Your task to perform on an android device: open app "Pinterest" (install if not already installed) Image 0: 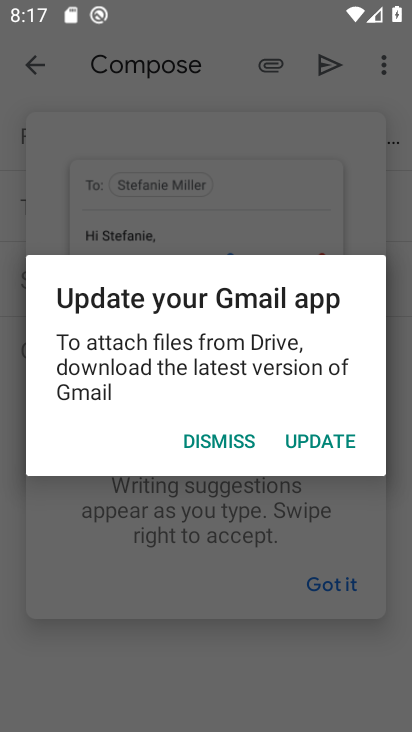
Step 0: press home button
Your task to perform on an android device: open app "Pinterest" (install if not already installed) Image 1: 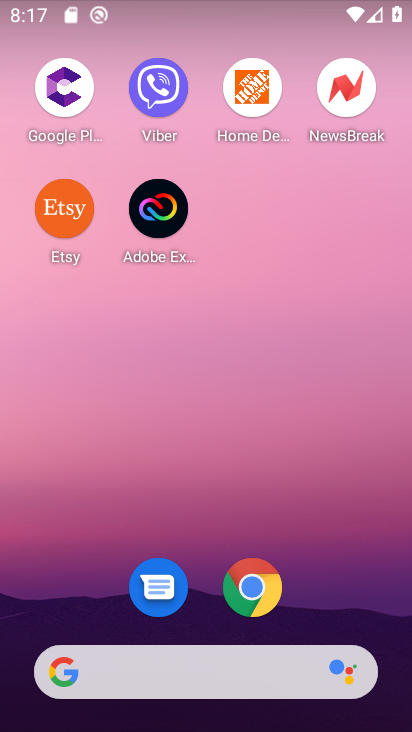
Step 1: drag from (395, 647) to (338, 179)
Your task to perform on an android device: open app "Pinterest" (install if not already installed) Image 2: 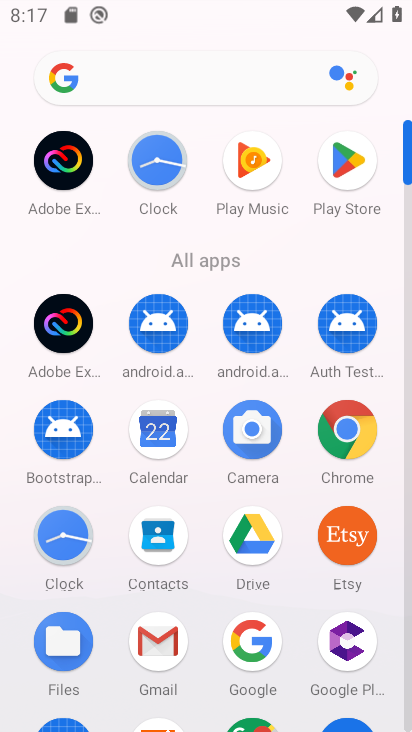
Step 2: drag from (291, 602) to (285, 149)
Your task to perform on an android device: open app "Pinterest" (install if not already installed) Image 3: 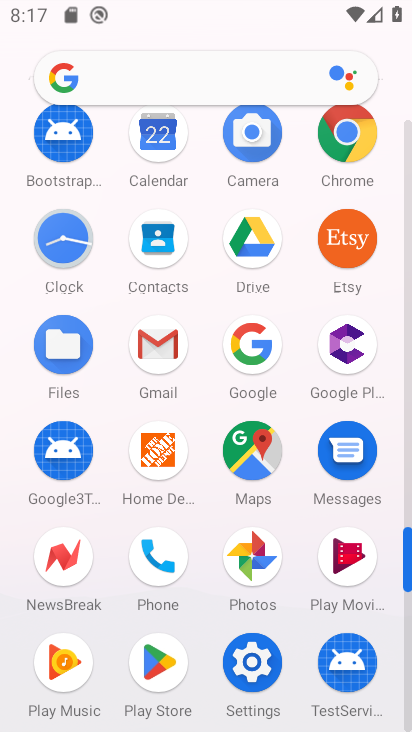
Step 3: click (156, 660)
Your task to perform on an android device: open app "Pinterest" (install if not already installed) Image 4: 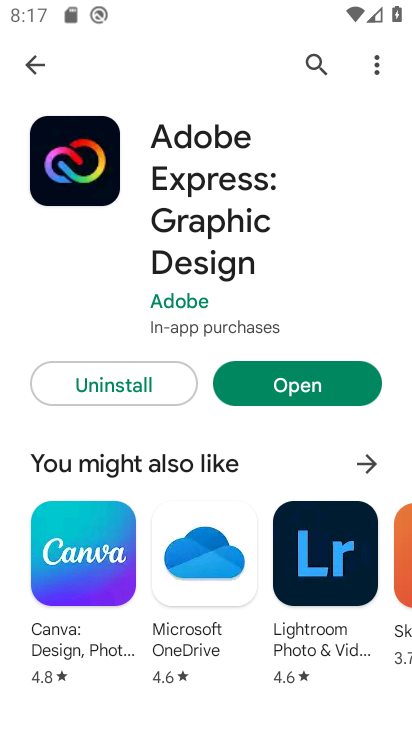
Step 4: click (304, 55)
Your task to perform on an android device: open app "Pinterest" (install if not already installed) Image 5: 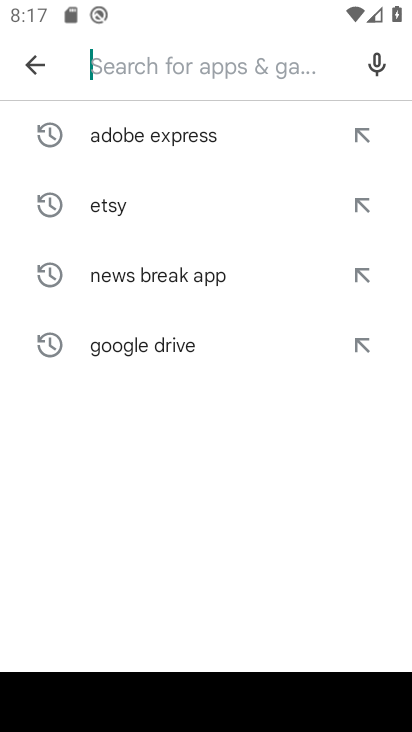
Step 5: type "Pinterest"
Your task to perform on an android device: open app "Pinterest" (install if not already installed) Image 6: 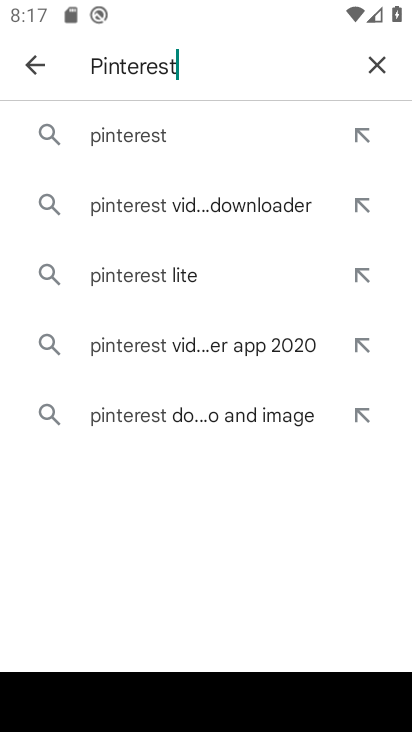
Step 6: click (124, 135)
Your task to perform on an android device: open app "Pinterest" (install if not already installed) Image 7: 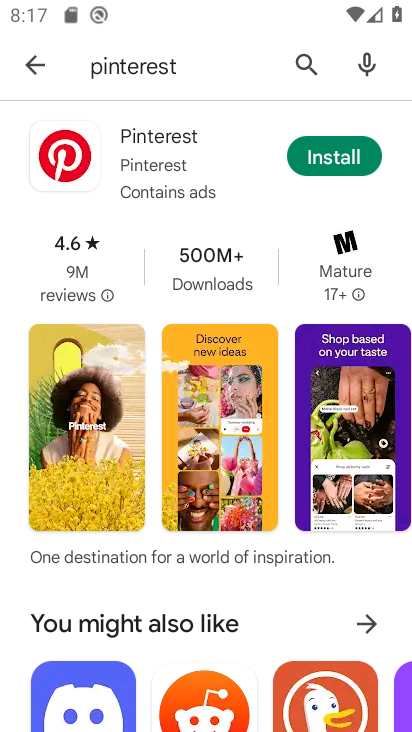
Step 7: click (348, 155)
Your task to perform on an android device: open app "Pinterest" (install if not already installed) Image 8: 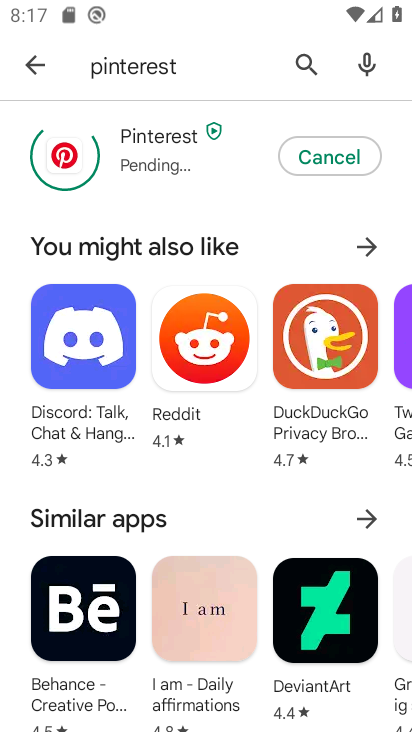
Step 8: click (122, 128)
Your task to perform on an android device: open app "Pinterest" (install if not already installed) Image 9: 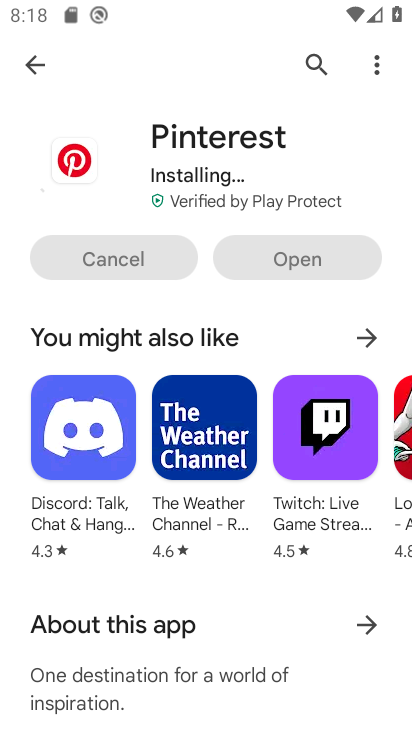
Step 9: drag from (188, 181) to (208, 305)
Your task to perform on an android device: open app "Pinterest" (install if not already installed) Image 10: 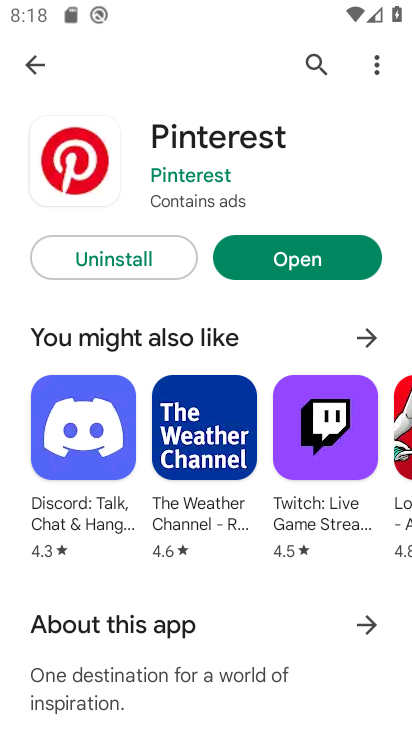
Step 10: click (295, 258)
Your task to perform on an android device: open app "Pinterest" (install if not already installed) Image 11: 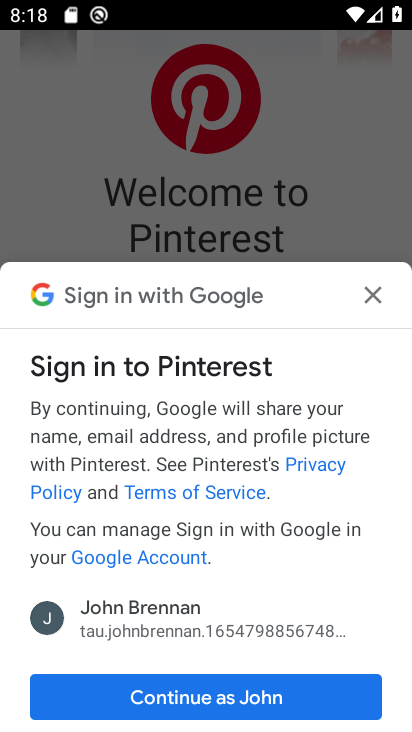
Step 11: click (371, 290)
Your task to perform on an android device: open app "Pinterest" (install if not already installed) Image 12: 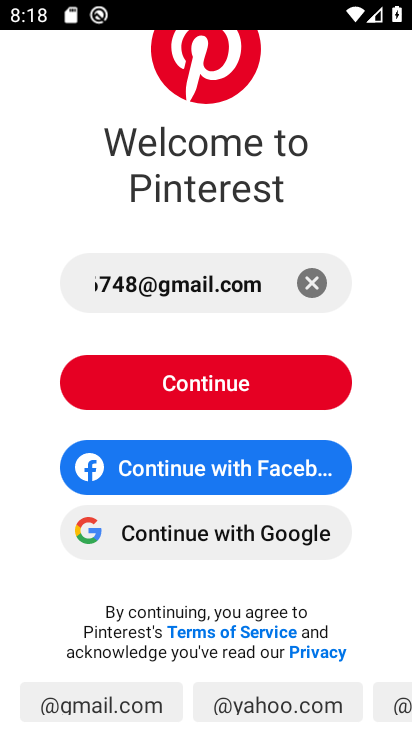
Step 12: task complete